Your task to perform on an android device: Turn off the flashlight Image 0: 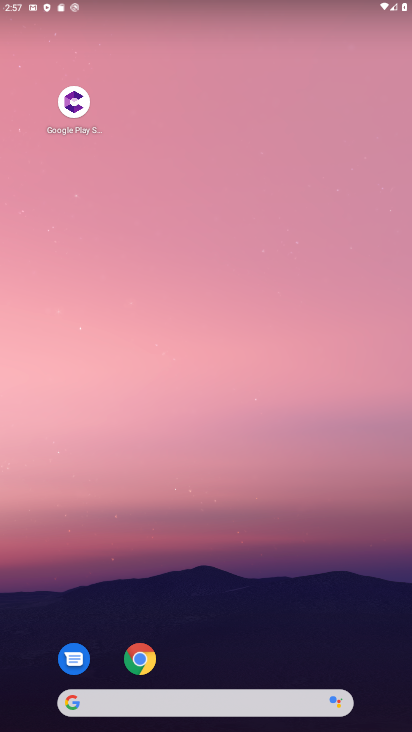
Step 0: drag from (205, 673) to (19, 15)
Your task to perform on an android device: Turn off the flashlight Image 1: 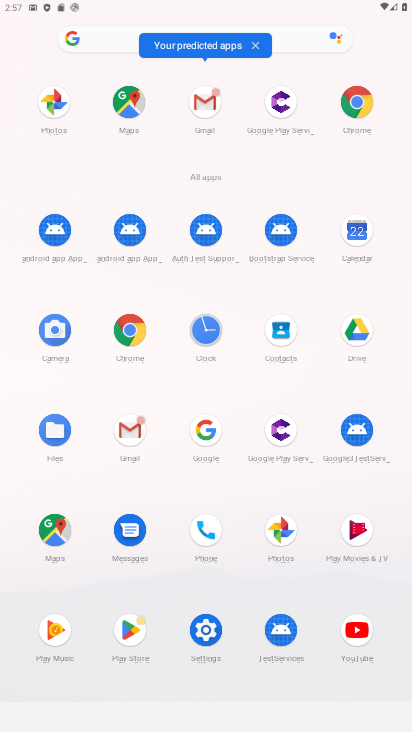
Step 1: click (192, 629)
Your task to perform on an android device: Turn off the flashlight Image 2: 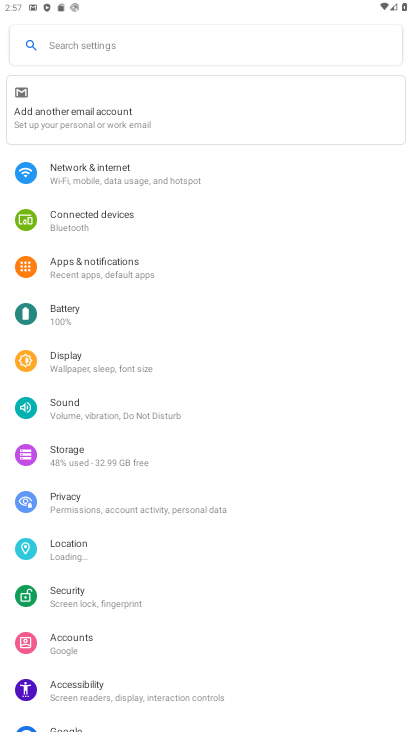
Step 2: task complete